Your task to perform on an android device: toggle translation in the chrome app Image 0: 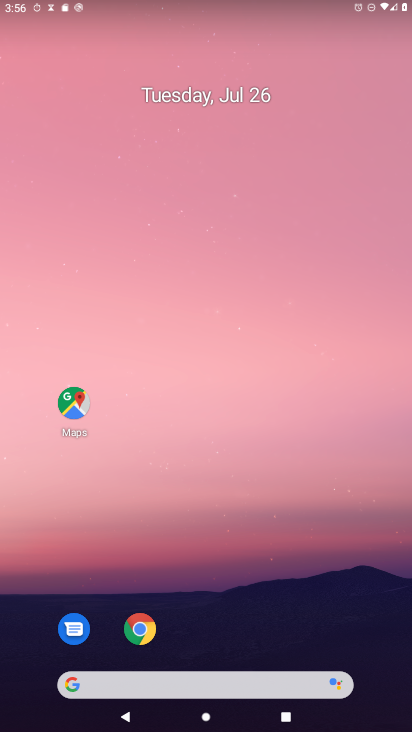
Step 0: drag from (273, 683) to (330, 41)
Your task to perform on an android device: toggle translation in the chrome app Image 1: 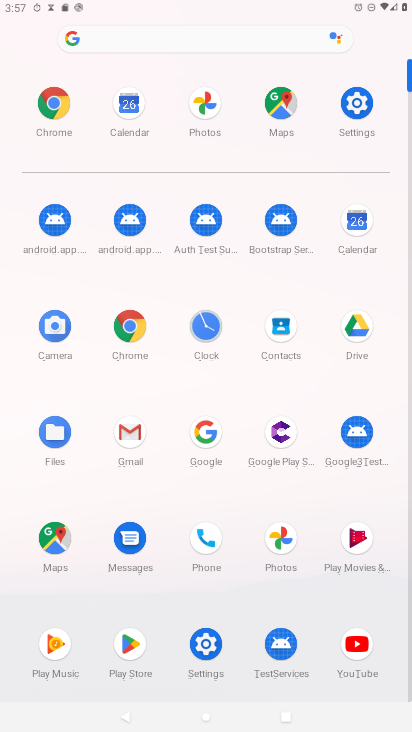
Step 1: click (121, 312)
Your task to perform on an android device: toggle translation in the chrome app Image 2: 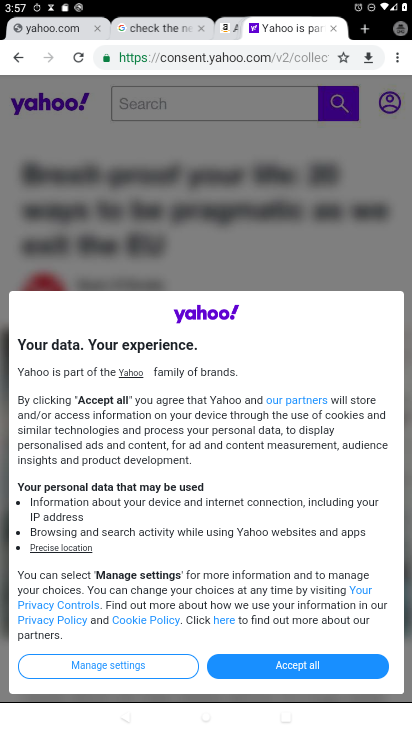
Step 2: drag from (391, 45) to (323, 410)
Your task to perform on an android device: toggle translation in the chrome app Image 3: 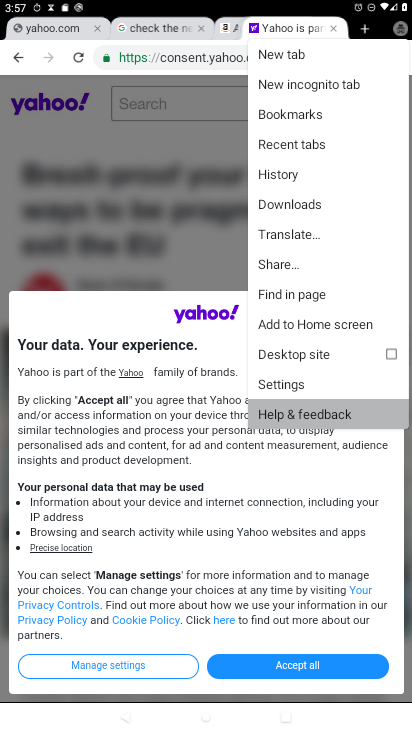
Step 3: click (309, 388)
Your task to perform on an android device: toggle translation in the chrome app Image 4: 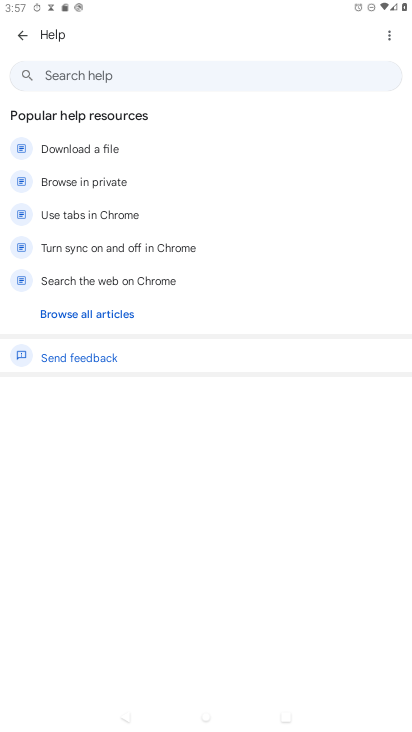
Step 4: press back button
Your task to perform on an android device: toggle translation in the chrome app Image 5: 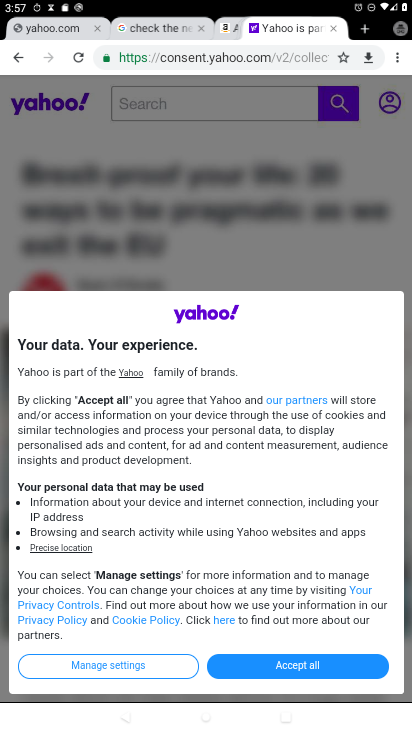
Step 5: click (393, 50)
Your task to perform on an android device: toggle translation in the chrome app Image 6: 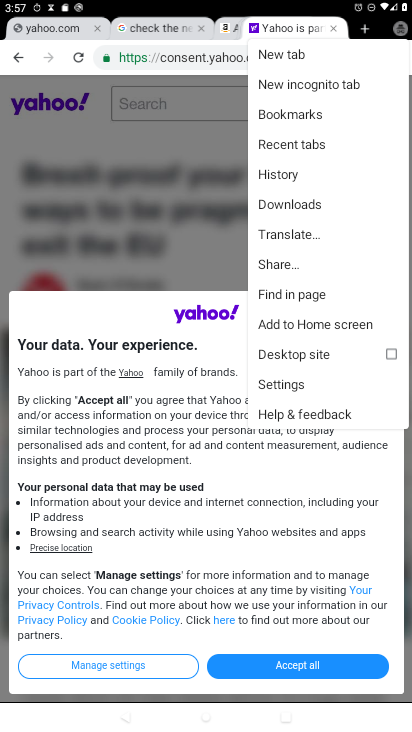
Step 6: click (292, 384)
Your task to perform on an android device: toggle translation in the chrome app Image 7: 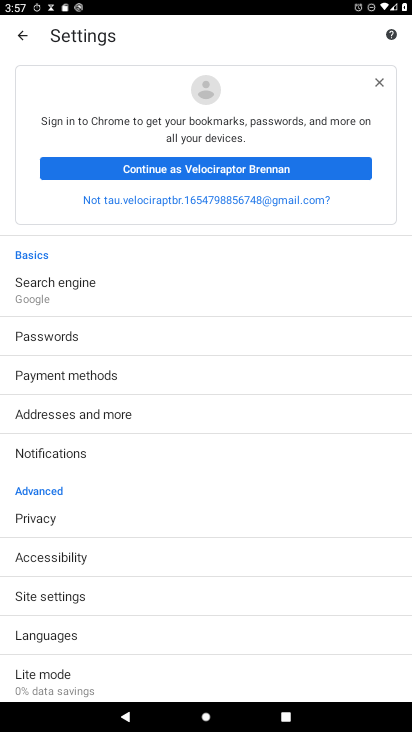
Step 7: click (66, 645)
Your task to perform on an android device: toggle translation in the chrome app Image 8: 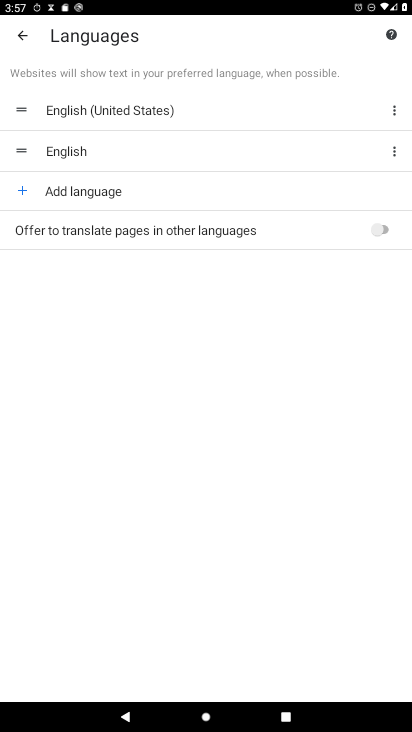
Step 8: click (382, 233)
Your task to perform on an android device: toggle translation in the chrome app Image 9: 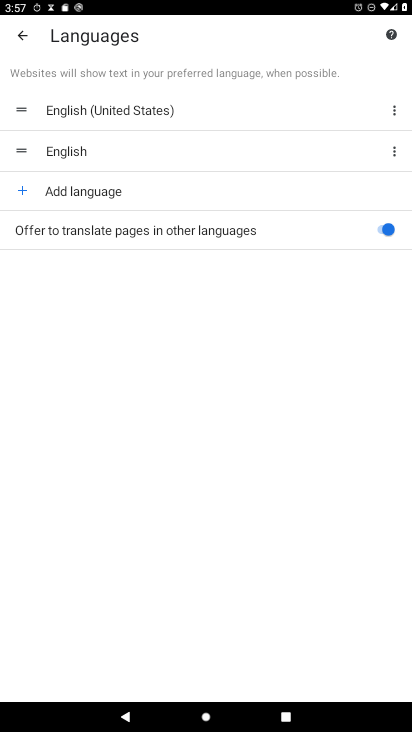
Step 9: task complete